Your task to perform on an android device: turn off data saver in the chrome app Image 0: 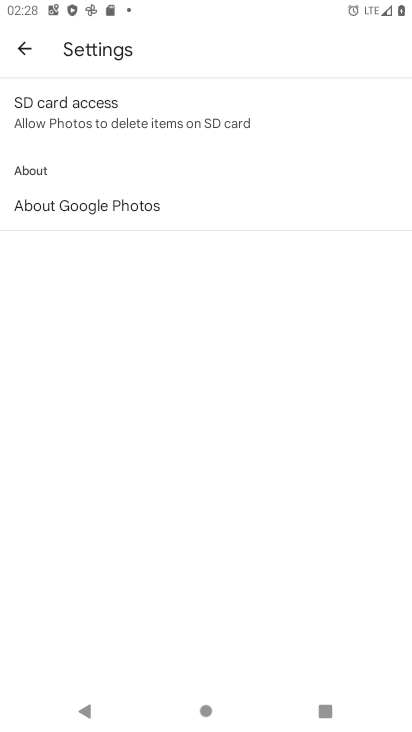
Step 0: press home button
Your task to perform on an android device: turn off data saver in the chrome app Image 1: 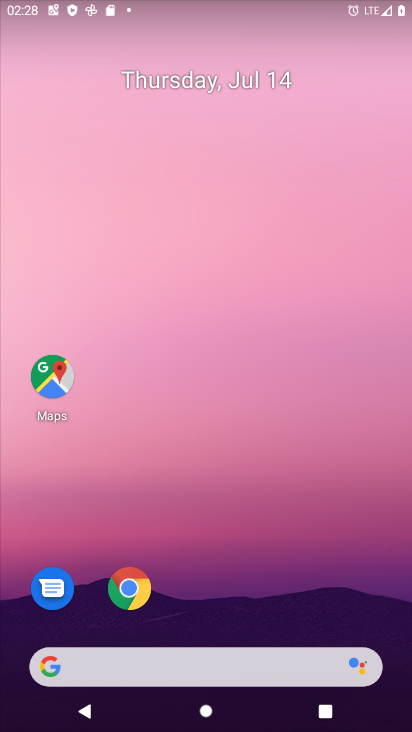
Step 1: click (151, 595)
Your task to perform on an android device: turn off data saver in the chrome app Image 2: 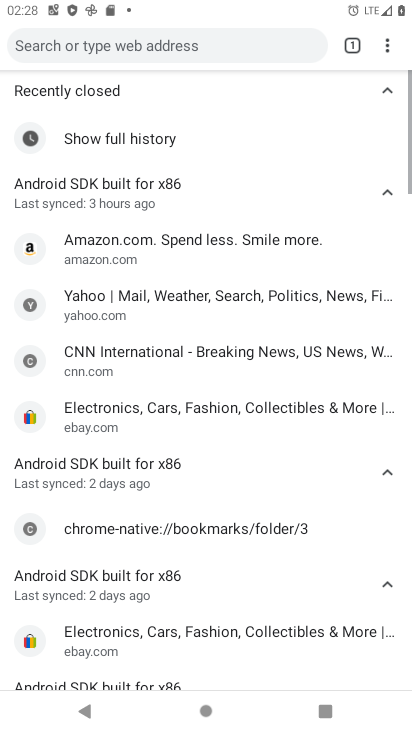
Step 2: click (392, 44)
Your task to perform on an android device: turn off data saver in the chrome app Image 3: 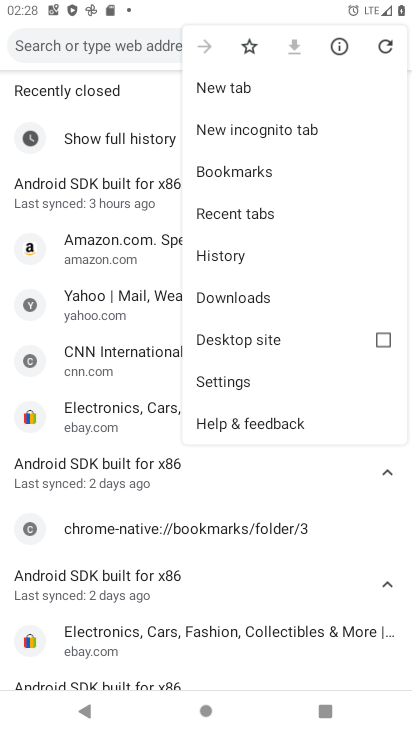
Step 3: click (211, 386)
Your task to perform on an android device: turn off data saver in the chrome app Image 4: 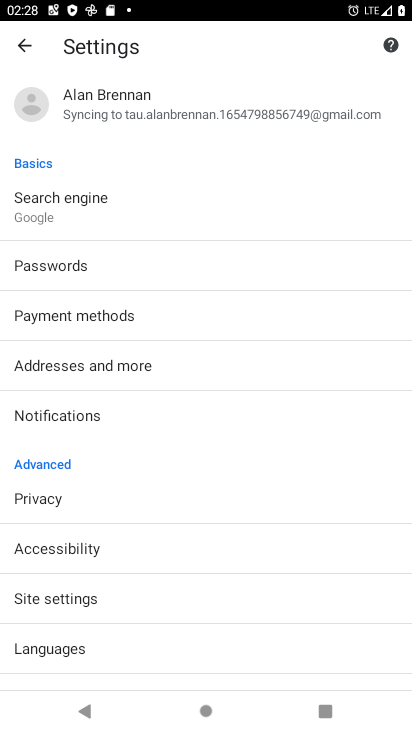
Step 4: drag from (271, 583) to (268, 198)
Your task to perform on an android device: turn off data saver in the chrome app Image 5: 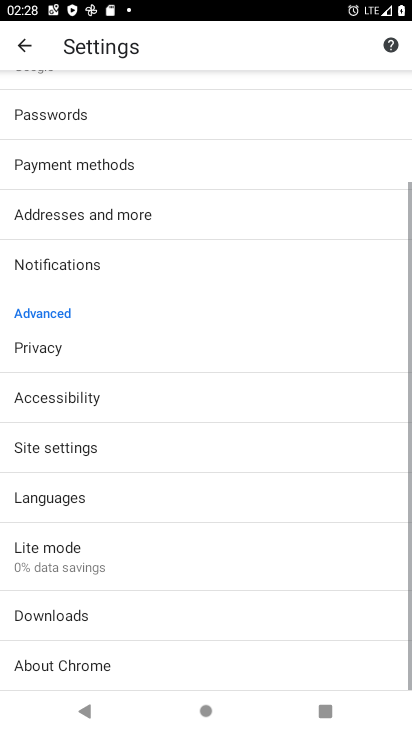
Step 5: click (75, 564)
Your task to perform on an android device: turn off data saver in the chrome app Image 6: 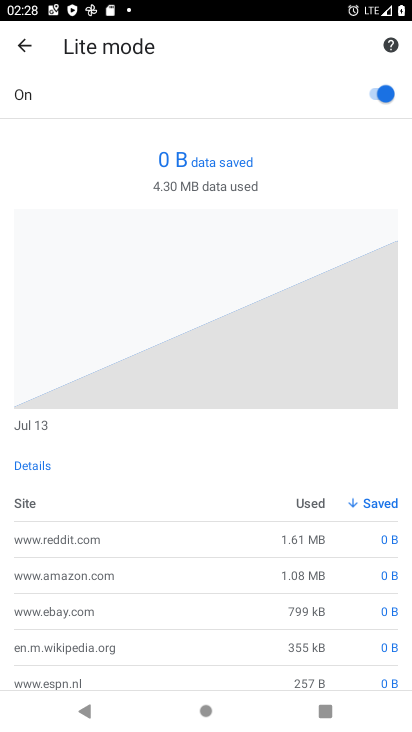
Step 6: click (386, 95)
Your task to perform on an android device: turn off data saver in the chrome app Image 7: 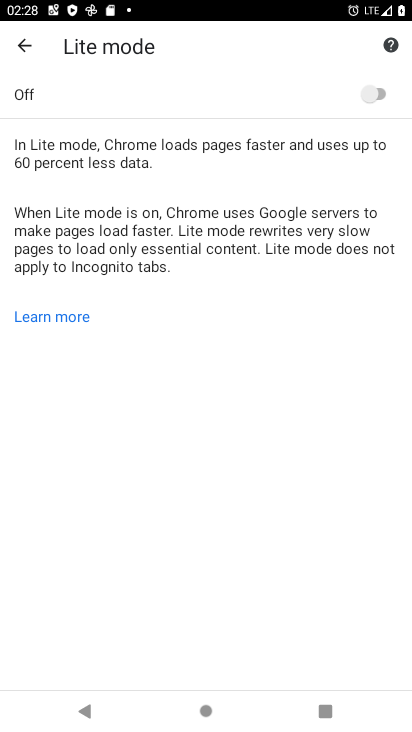
Step 7: task complete